Your task to perform on an android device: Open CNN.com Image 0: 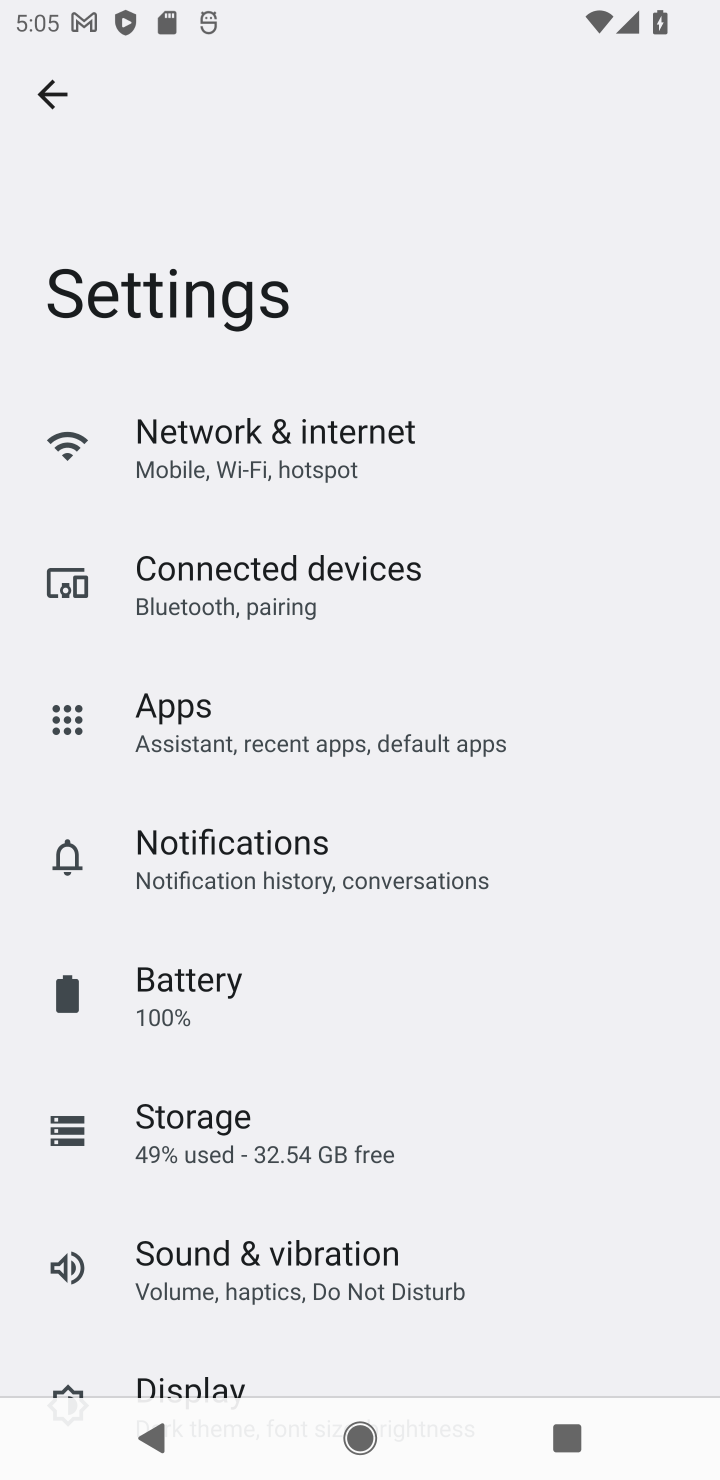
Step 0: press home button
Your task to perform on an android device: Open CNN.com Image 1: 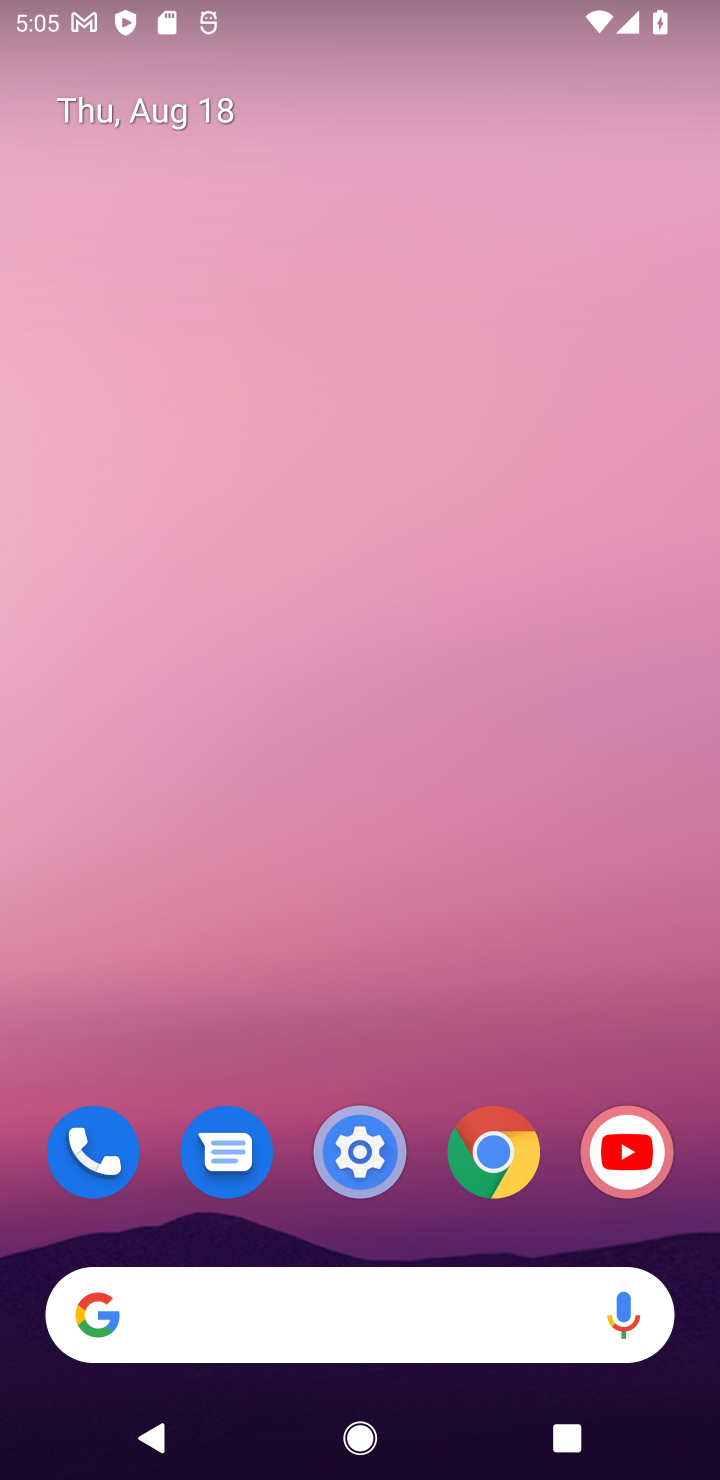
Step 1: click (472, 1324)
Your task to perform on an android device: Open CNN.com Image 2: 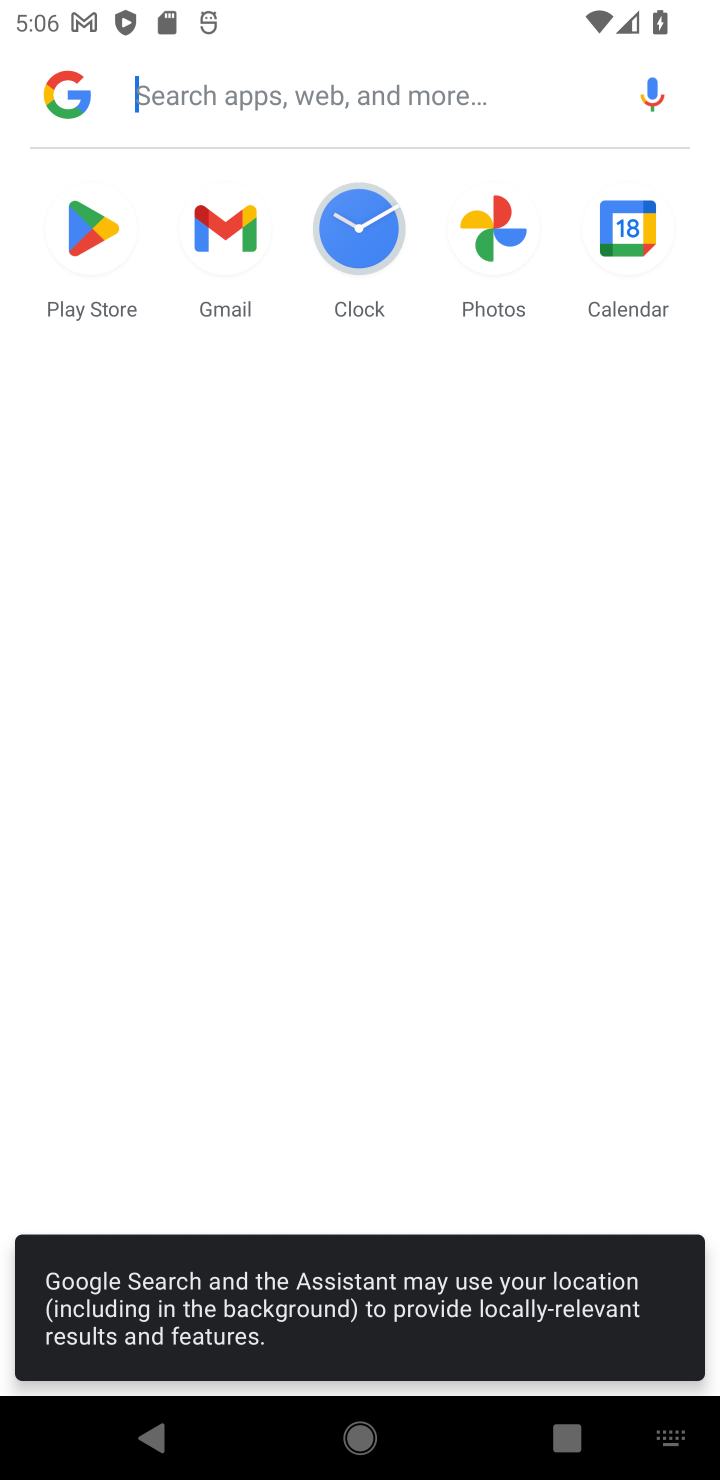
Step 2: type "cnn"
Your task to perform on an android device: Open CNN.com Image 3: 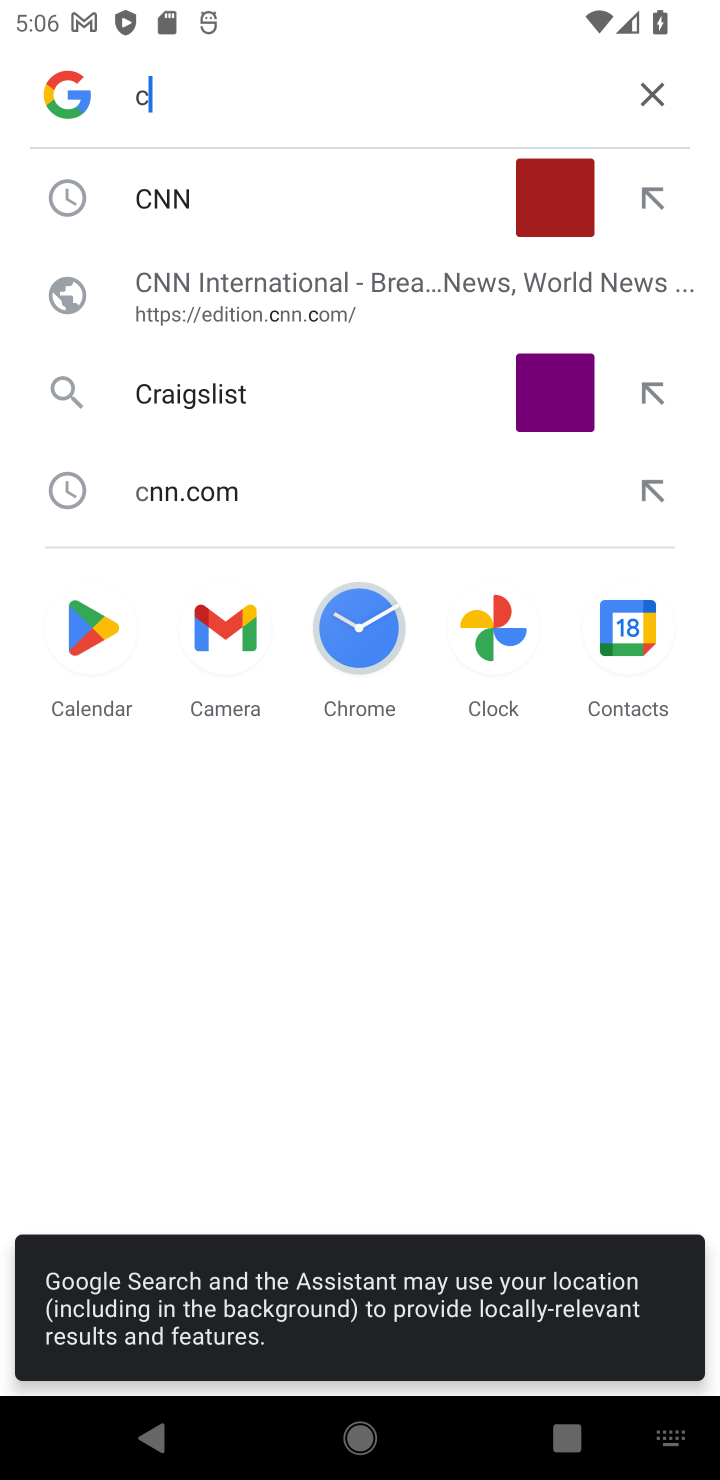
Step 3: type ""
Your task to perform on an android device: Open CNN.com Image 4: 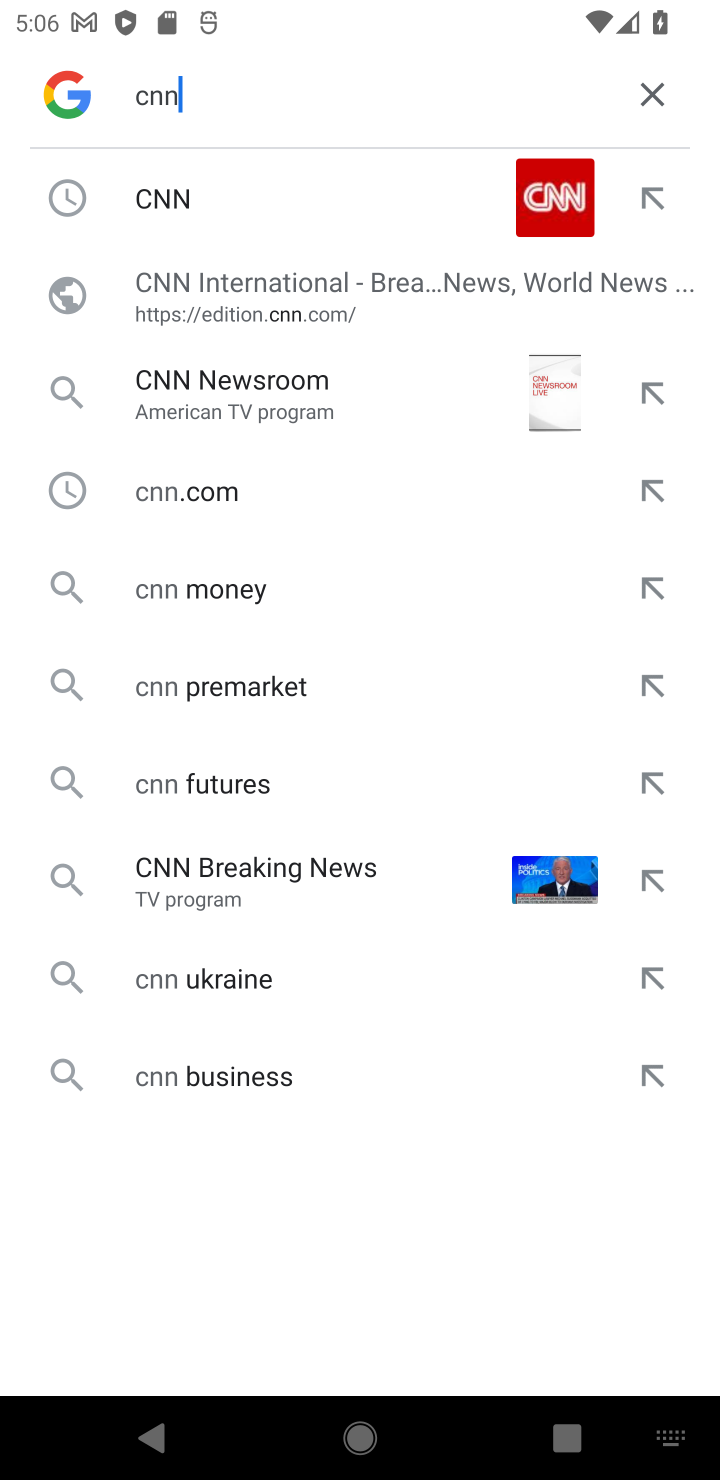
Step 4: click (277, 198)
Your task to perform on an android device: Open CNN.com Image 5: 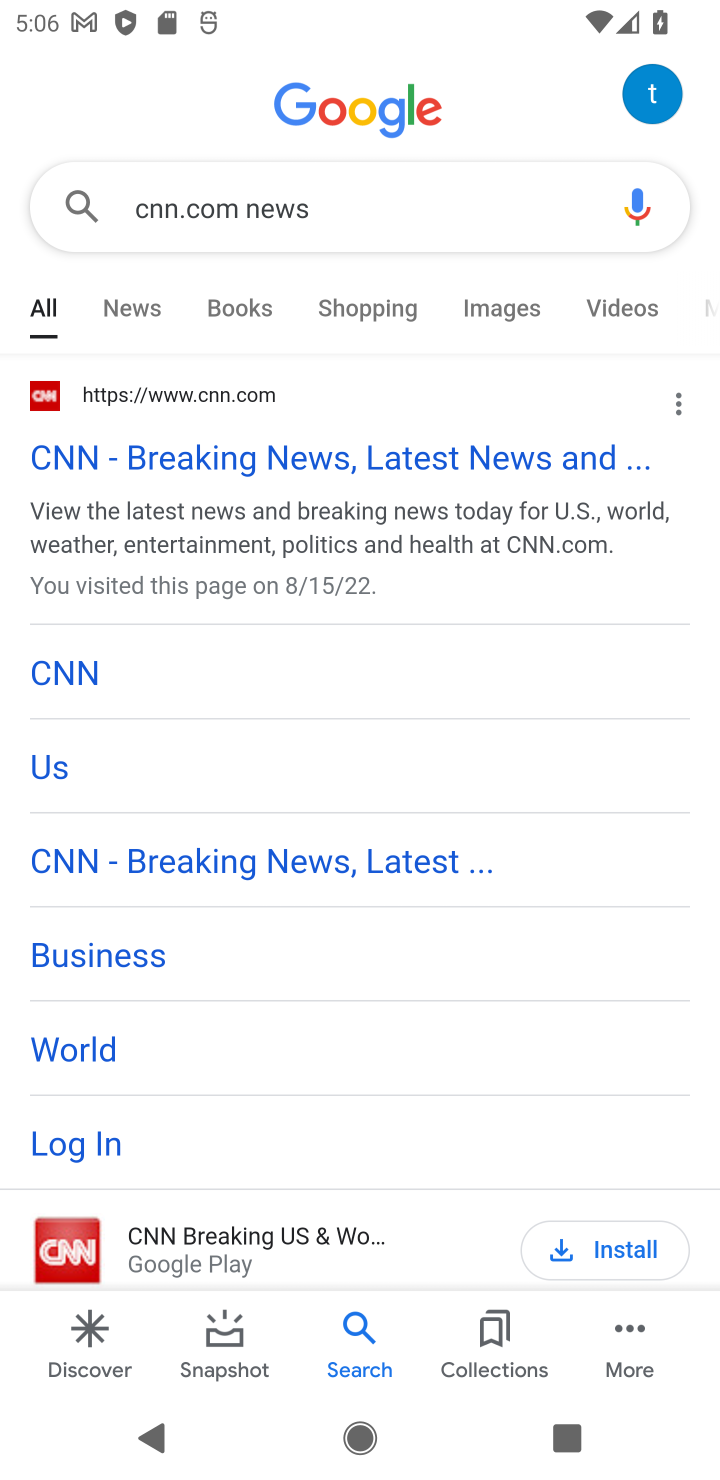
Step 5: click (149, 442)
Your task to perform on an android device: Open CNN.com Image 6: 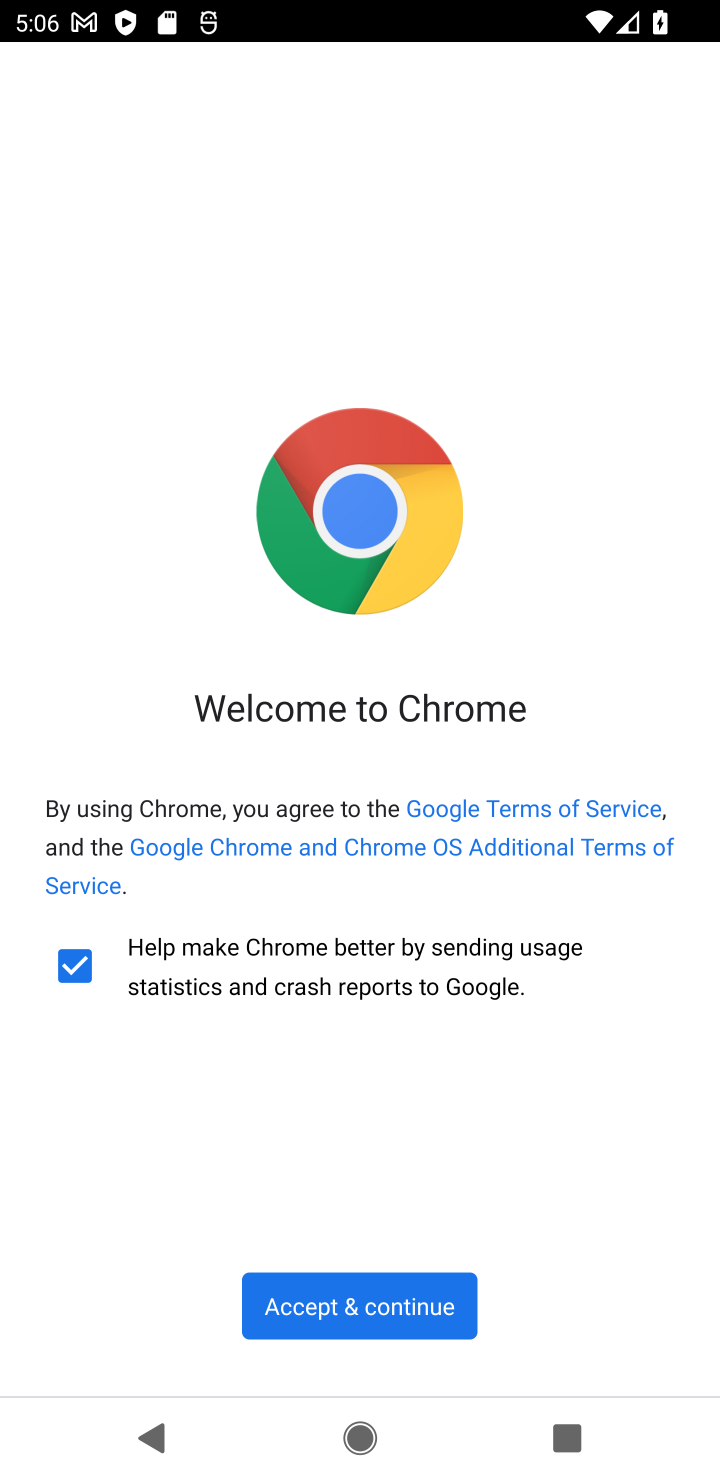
Step 6: click (412, 1297)
Your task to perform on an android device: Open CNN.com Image 7: 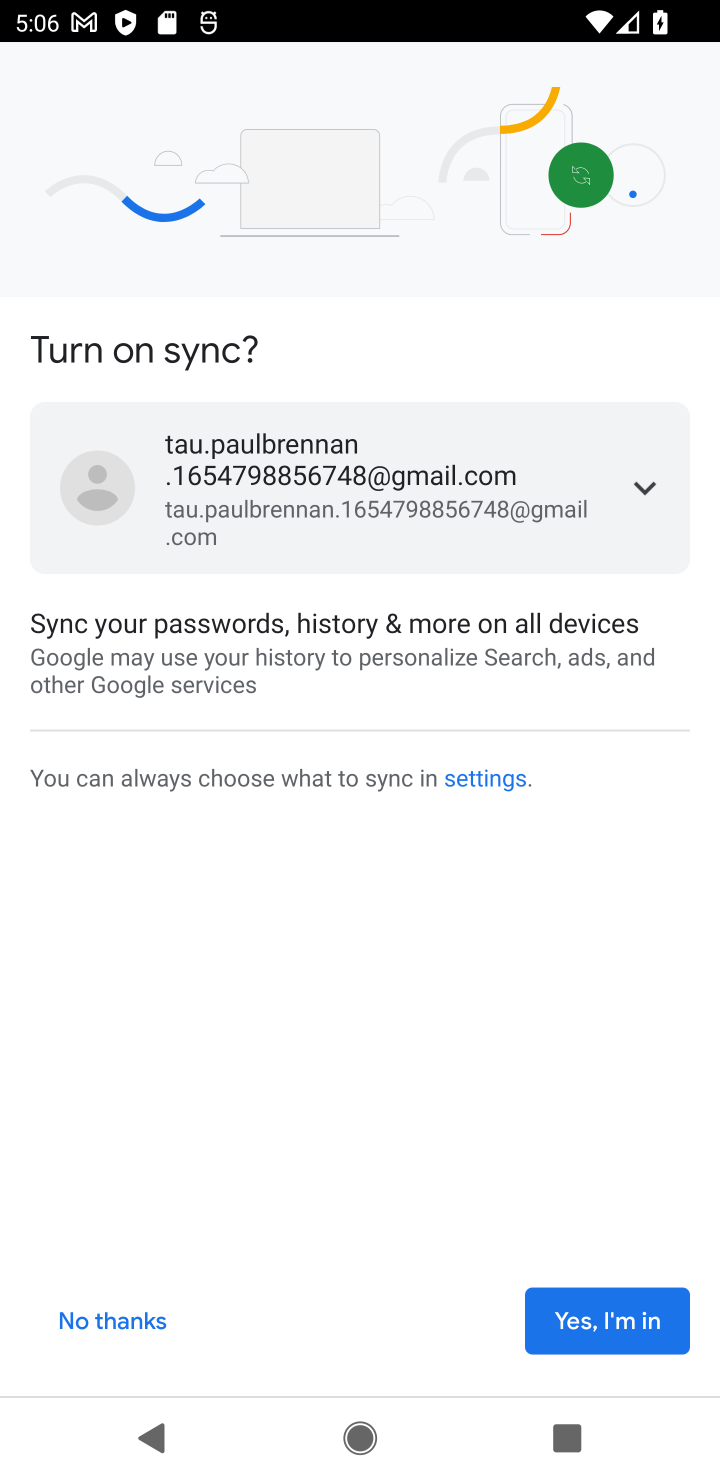
Step 7: click (532, 1314)
Your task to perform on an android device: Open CNN.com Image 8: 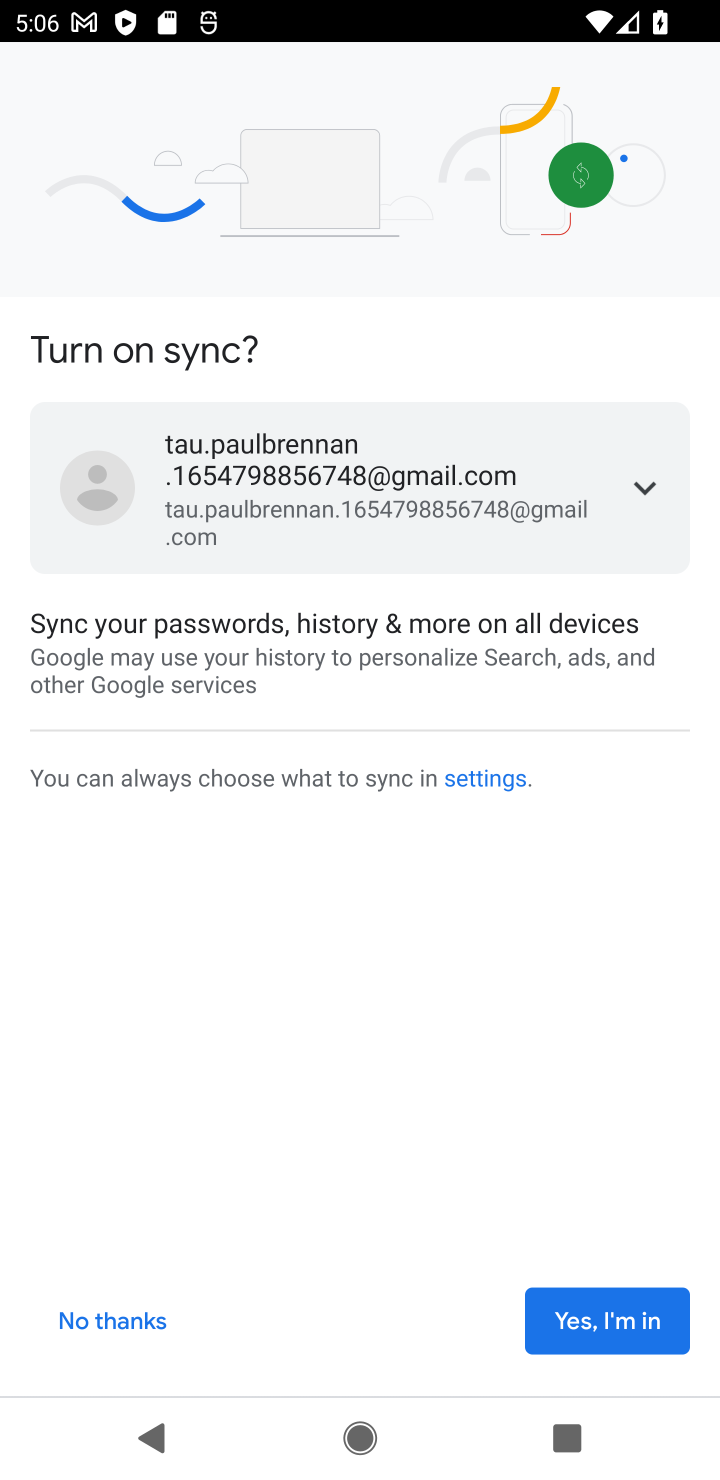
Step 8: click (532, 1314)
Your task to perform on an android device: Open CNN.com Image 9: 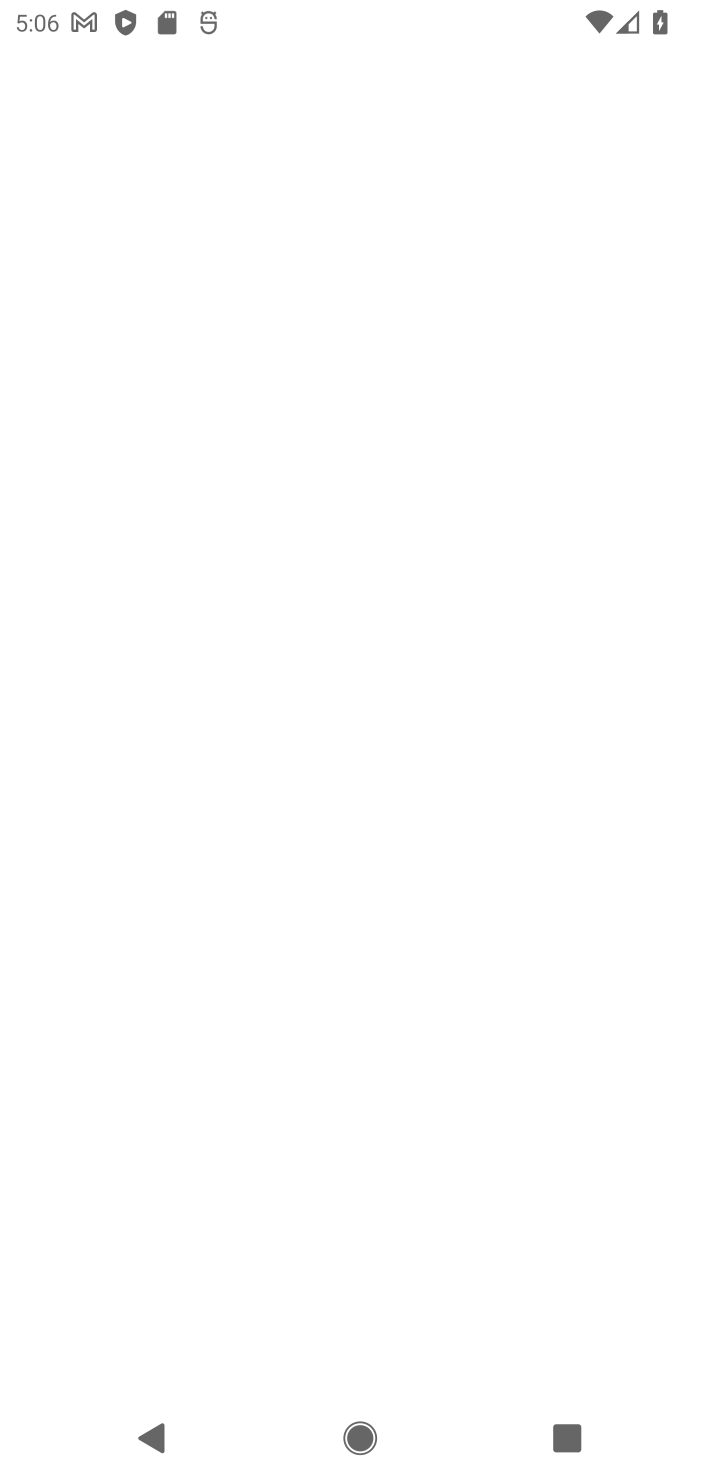
Step 9: click (532, 1314)
Your task to perform on an android device: Open CNN.com Image 10: 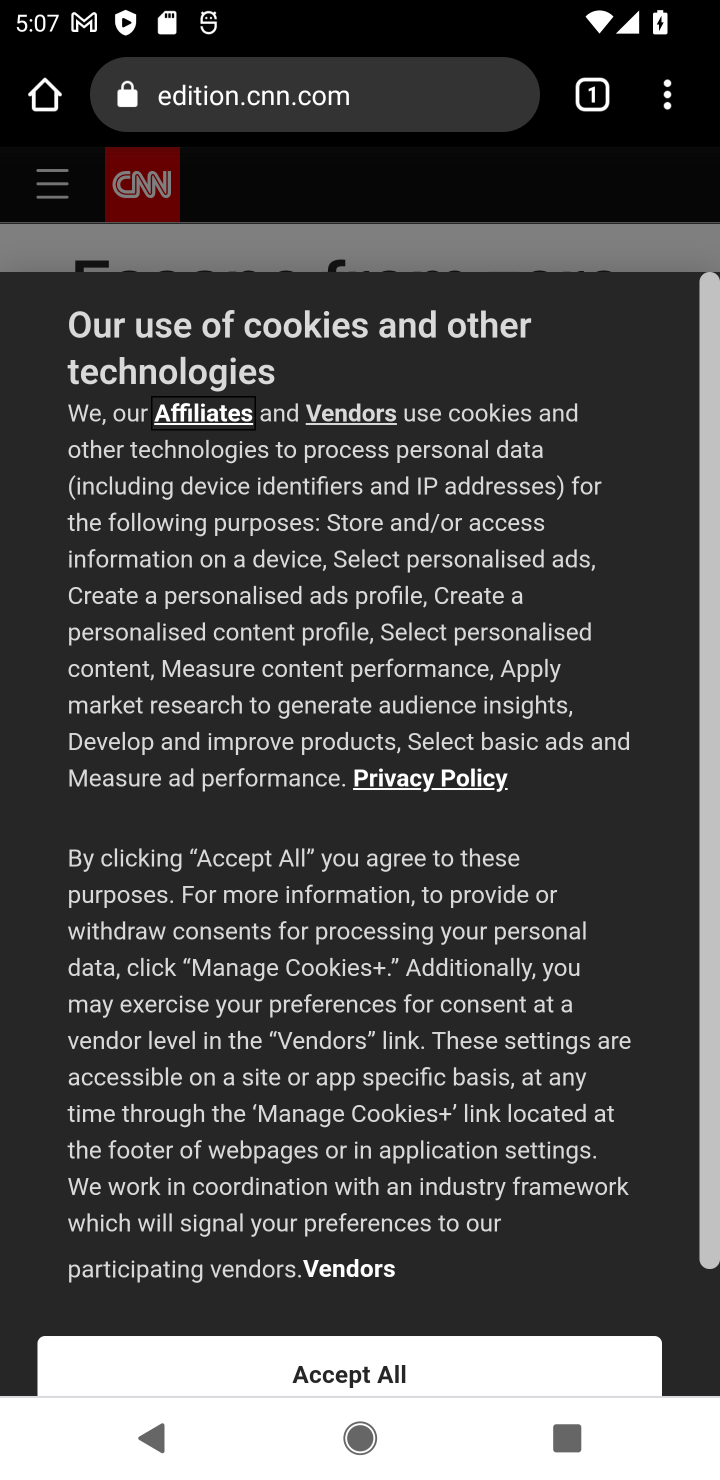
Step 10: task complete